Your task to perform on an android device: How much does a 2 bedroom apartment rent for in New York? Image 0: 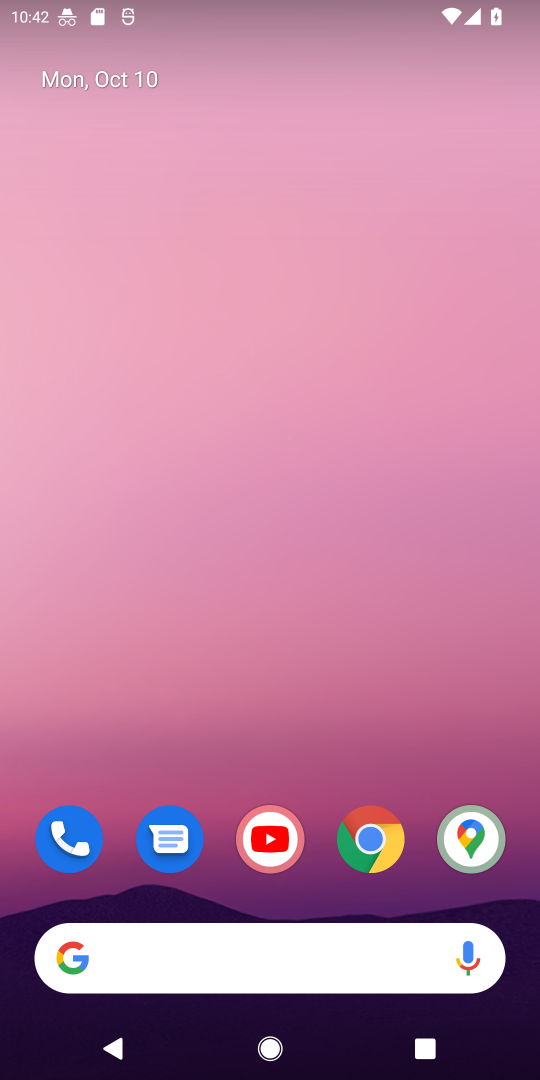
Step 0: drag from (340, 713) to (419, 35)
Your task to perform on an android device: How much does a 2 bedroom apartment rent for in New York? Image 1: 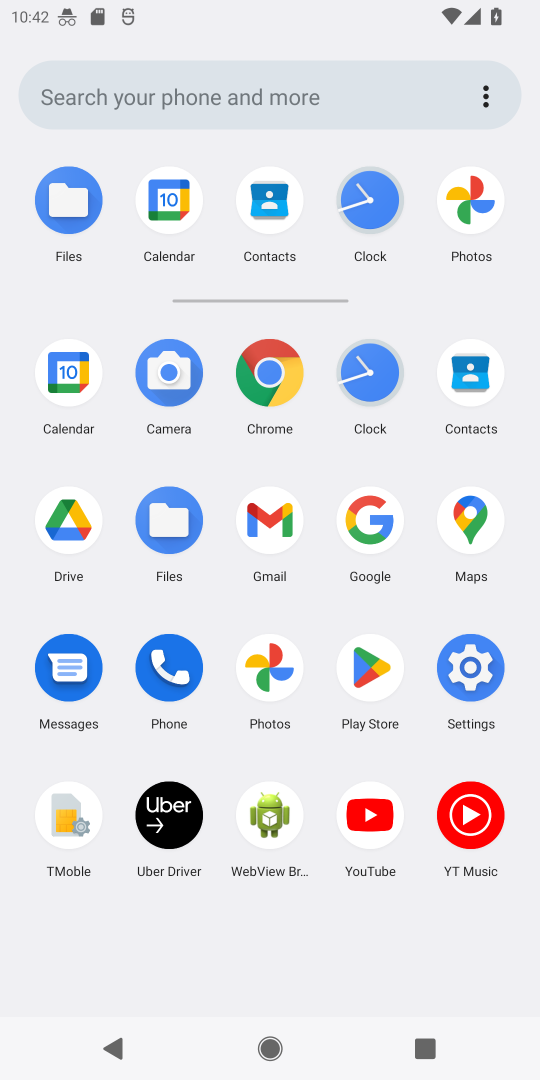
Step 1: click (270, 376)
Your task to perform on an android device: How much does a 2 bedroom apartment rent for in New York? Image 2: 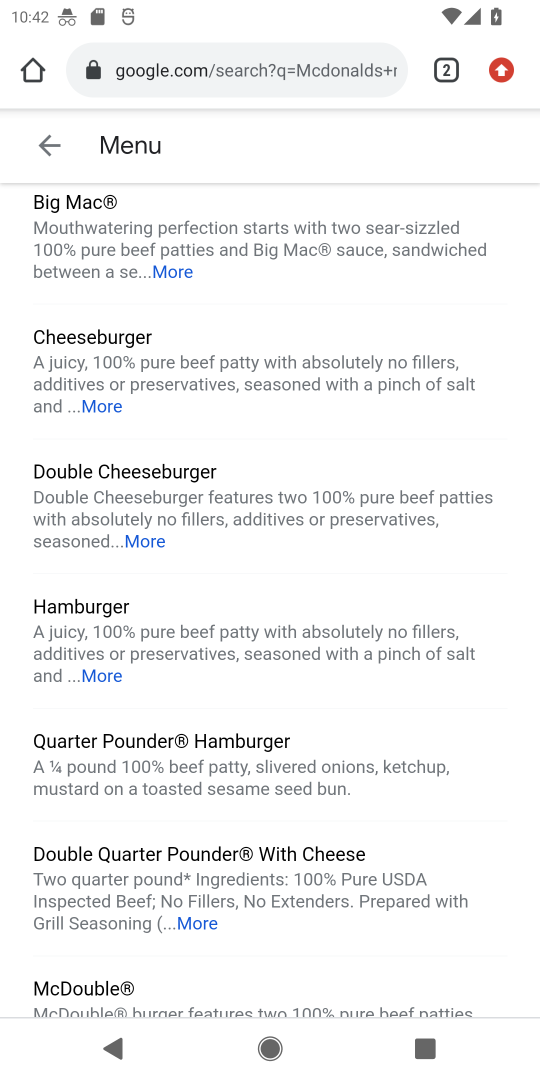
Step 2: click (330, 69)
Your task to perform on an android device: How much does a 2 bedroom apartment rent for in New York? Image 3: 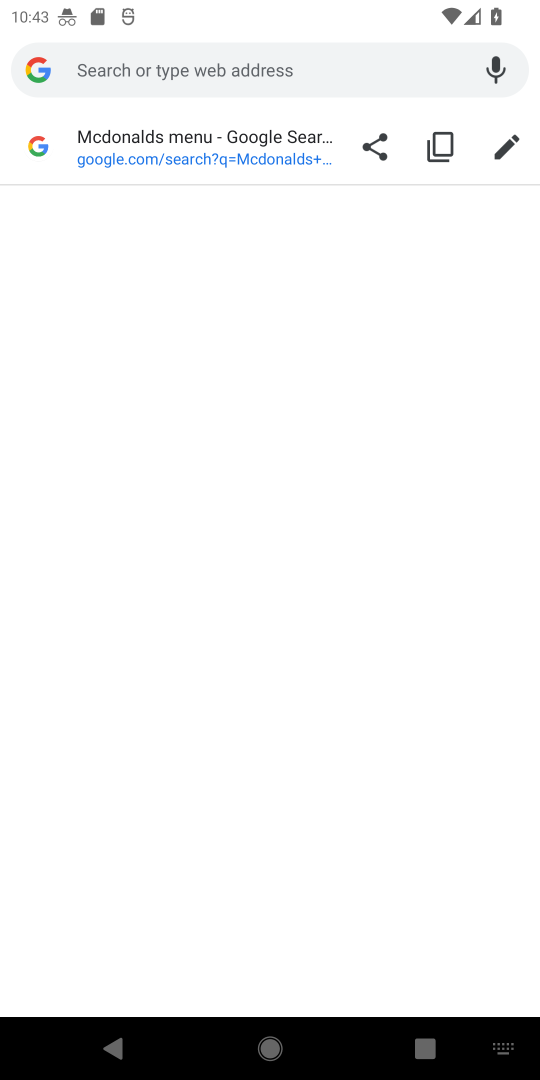
Step 3: type "How much does a 2 bedroom apartment rent for in New York?"
Your task to perform on an android device: How much does a 2 bedroom apartment rent for in New York? Image 4: 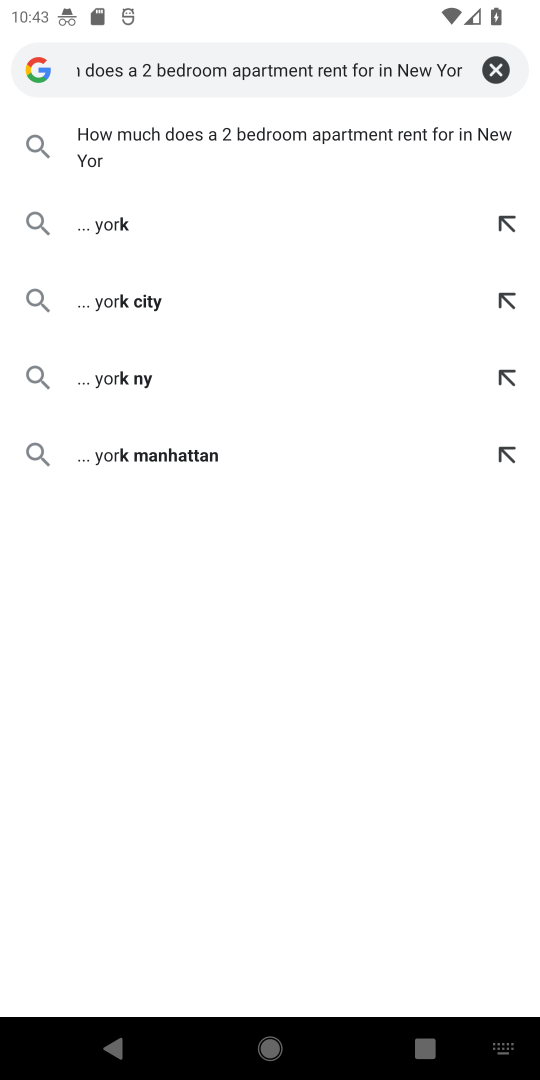
Step 4: type "k?"
Your task to perform on an android device: How much does a 2 bedroom apartment rent for in New York? Image 5: 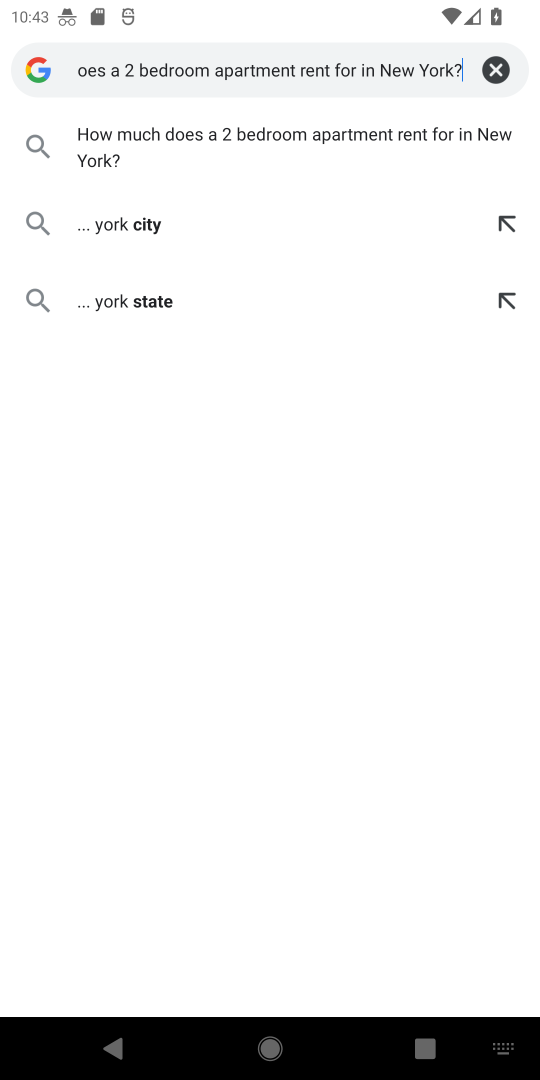
Step 5: press enter
Your task to perform on an android device: How much does a 2 bedroom apartment rent for in New York? Image 6: 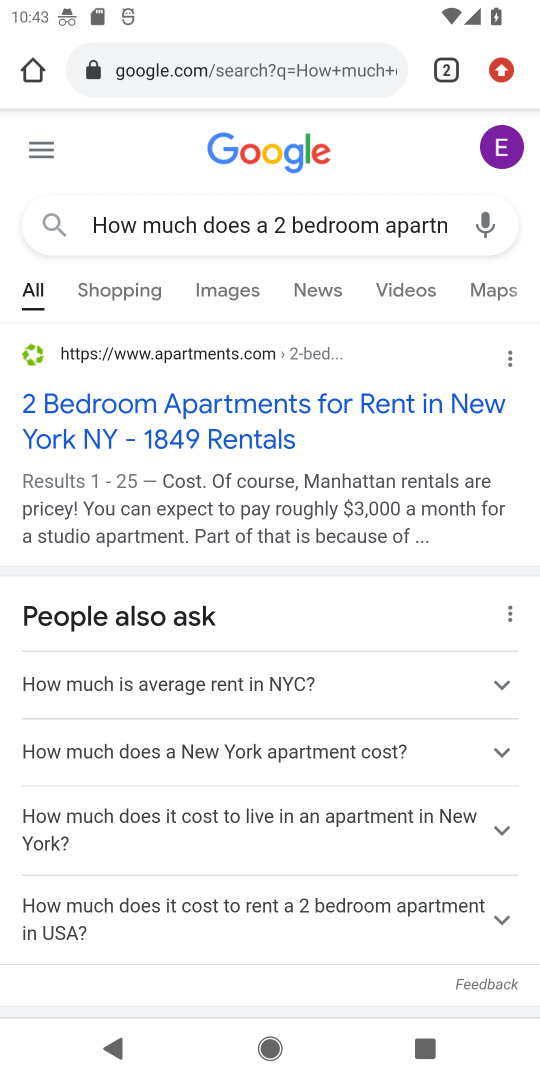
Step 6: task complete